Your task to perform on an android device: turn off location history Image 0: 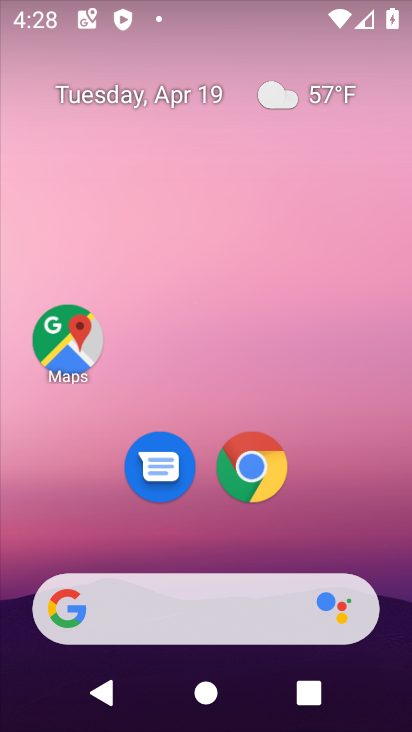
Step 0: drag from (173, 327) to (43, 261)
Your task to perform on an android device: turn off location history Image 1: 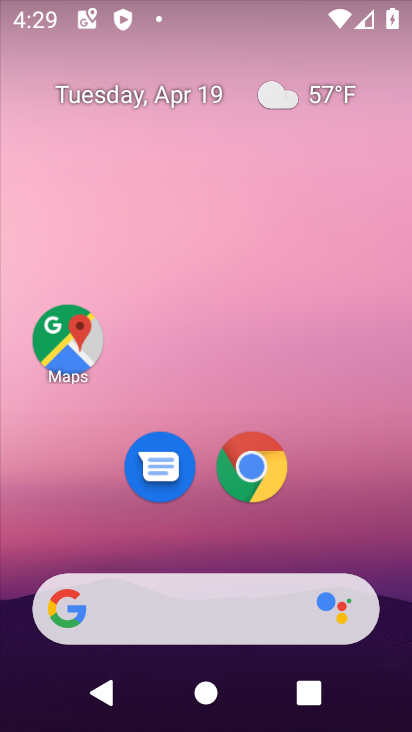
Step 1: drag from (254, 637) to (179, 1)
Your task to perform on an android device: turn off location history Image 2: 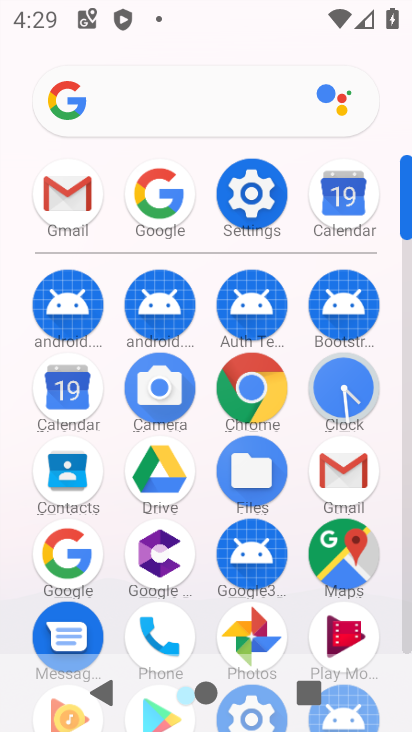
Step 2: click (260, 221)
Your task to perform on an android device: turn off location history Image 3: 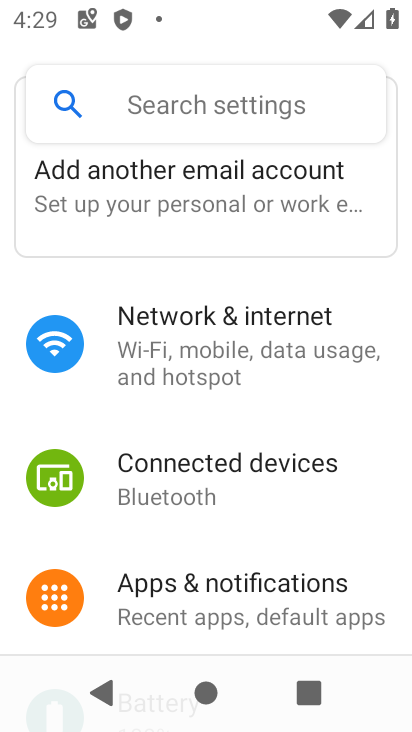
Step 3: drag from (261, 554) to (213, 153)
Your task to perform on an android device: turn off location history Image 4: 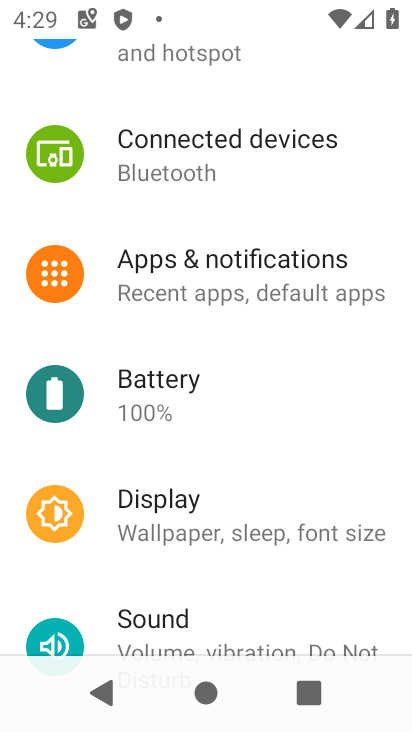
Step 4: drag from (165, 518) to (180, 225)
Your task to perform on an android device: turn off location history Image 5: 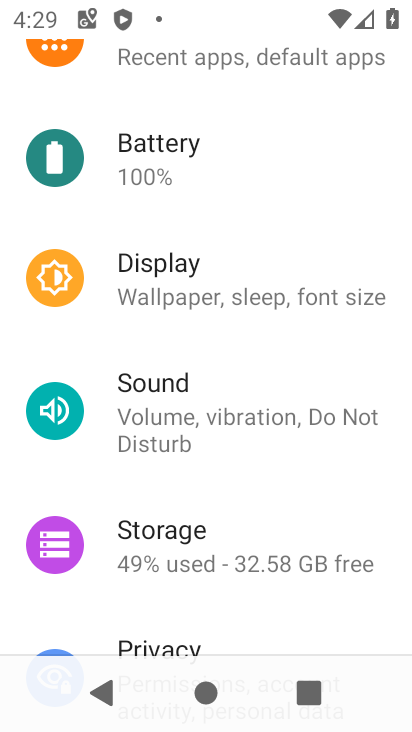
Step 5: drag from (158, 502) to (161, 277)
Your task to perform on an android device: turn off location history Image 6: 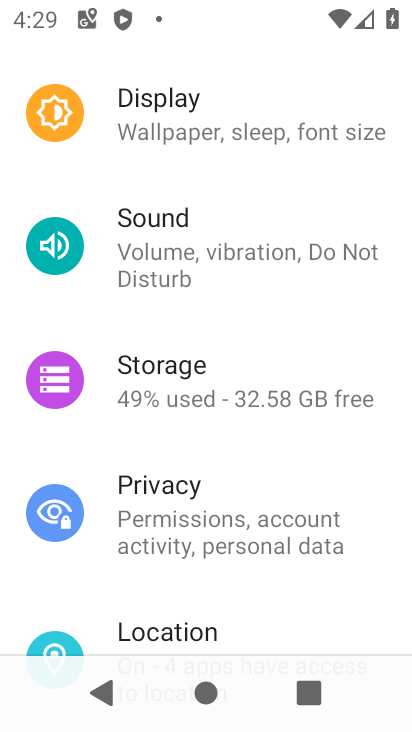
Step 6: drag from (168, 534) to (178, 243)
Your task to perform on an android device: turn off location history Image 7: 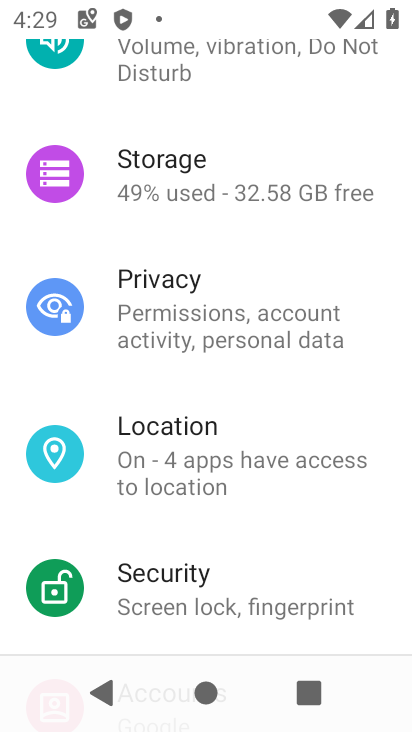
Step 7: click (222, 462)
Your task to perform on an android device: turn off location history Image 8: 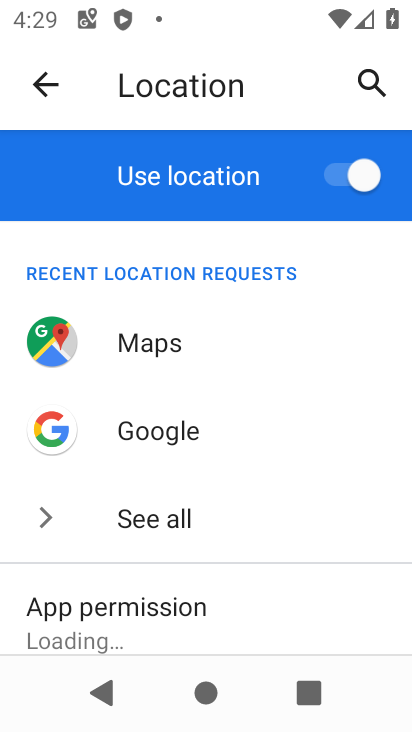
Step 8: drag from (222, 566) to (196, 286)
Your task to perform on an android device: turn off location history Image 9: 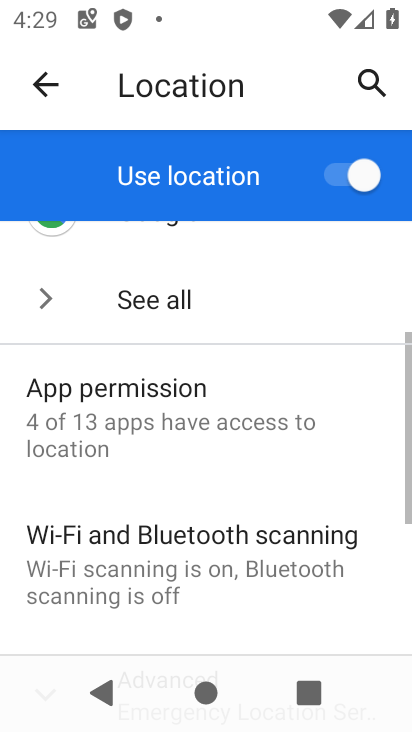
Step 9: click (196, 267)
Your task to perform on an android device: turn off location history Image 10: 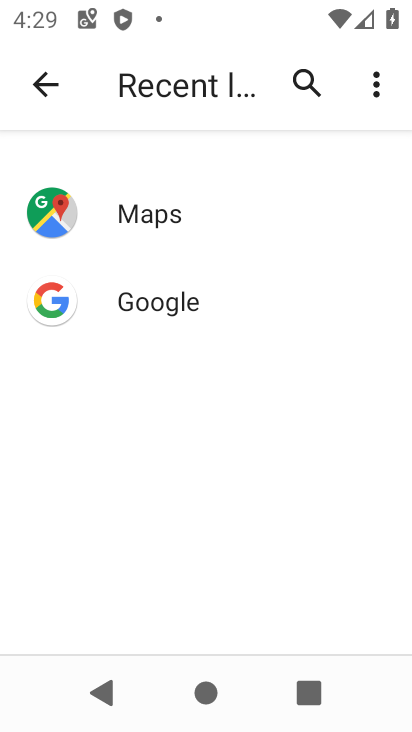
Step 10: click (114, 710)
Your task to perform on an android device: turn off location history Image 11: 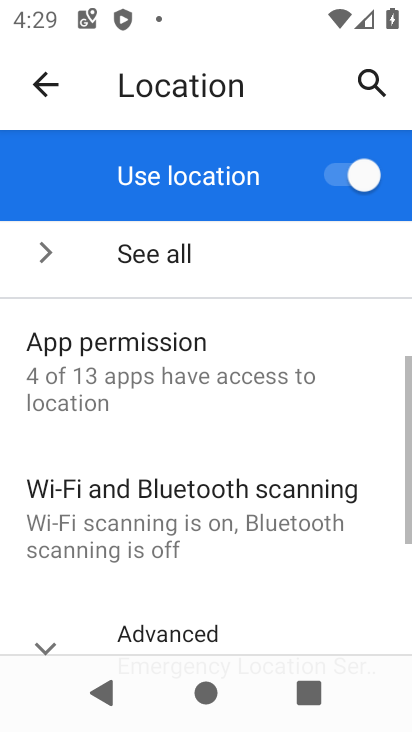
Step 11: drag from (114, 538) to (99, 320)
Your task to perform on an android device: turn off location history Image 12: 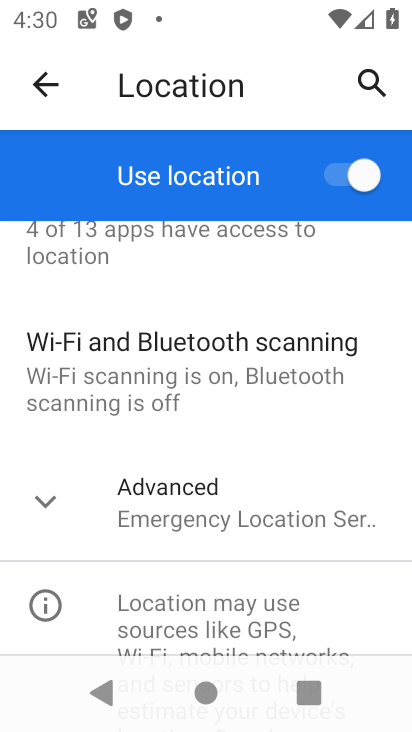
Step 12: click (93, 491)
Your task to perform on an android device: turn off location history Image 13: 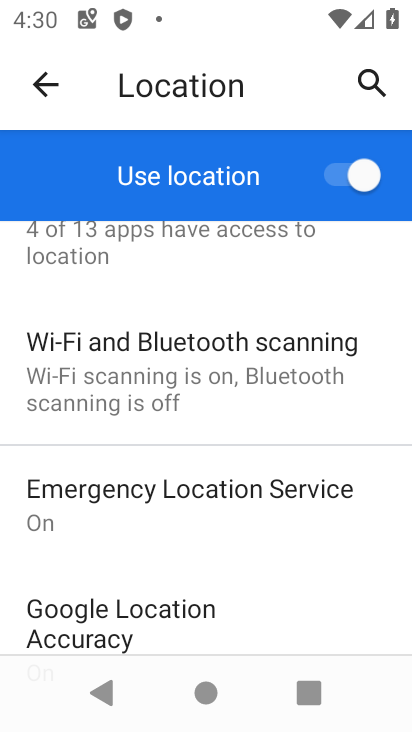
Step 13: drag from (120, 540) to (74, 290)
Your task to perform on an android device: turn off location history Image 14: 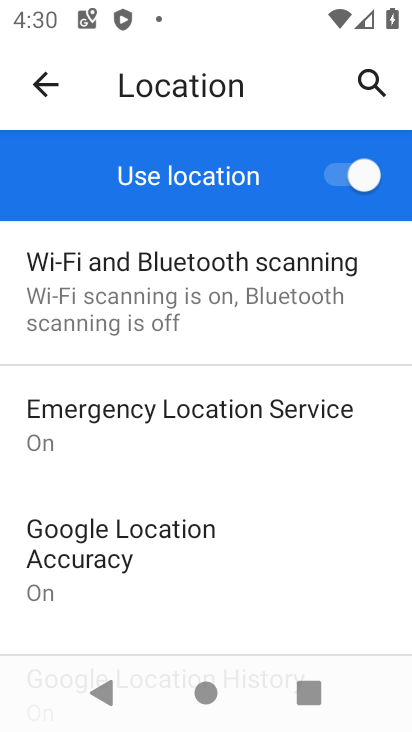
Step 14: drag from (150, 522) to (135, 317)
Your task to perform on an android device: turn off location history Image 15: 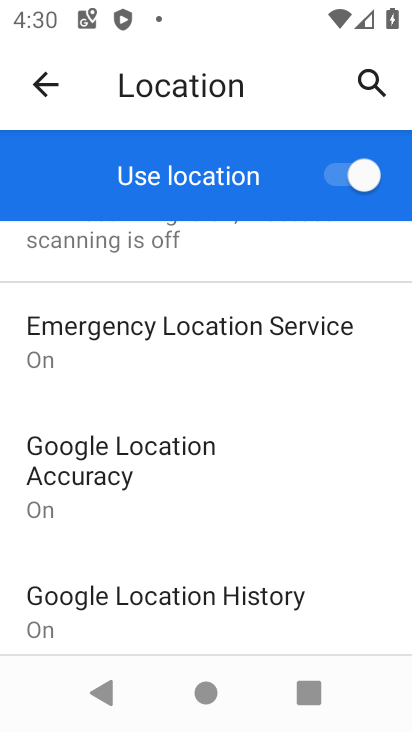
Step 15: drag from (146, 506) to (133, 273)
Your task to perform on an android device: turn off location history Image 16: 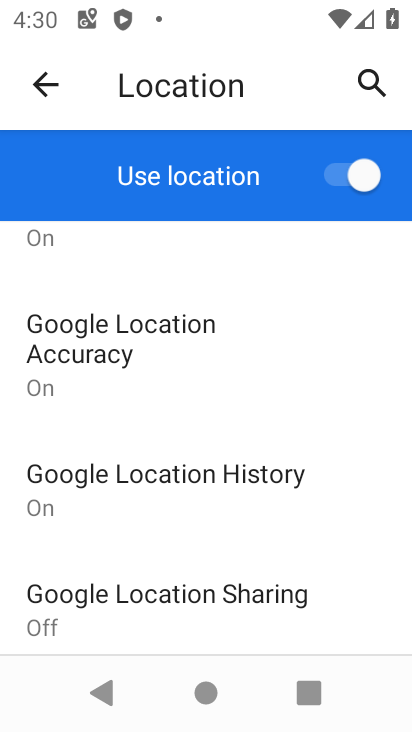
Step 16: click (203, 495)
Your task to perform on an android device: turn off location history Image 17: 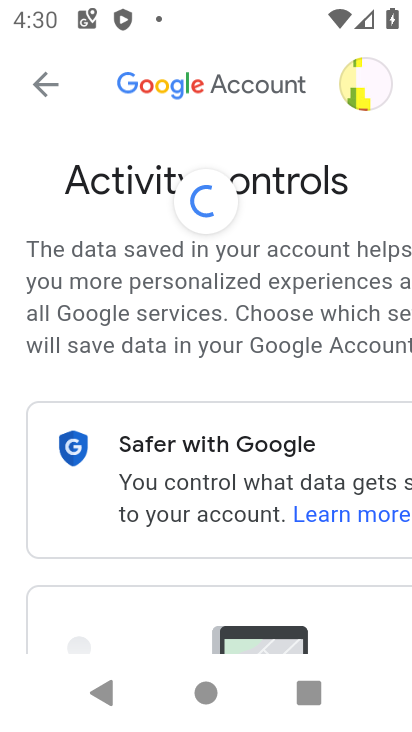
Step 17: drag from (297, 567) to (93, 238)
Your task to perform on an android device: turn off location history Image 18: 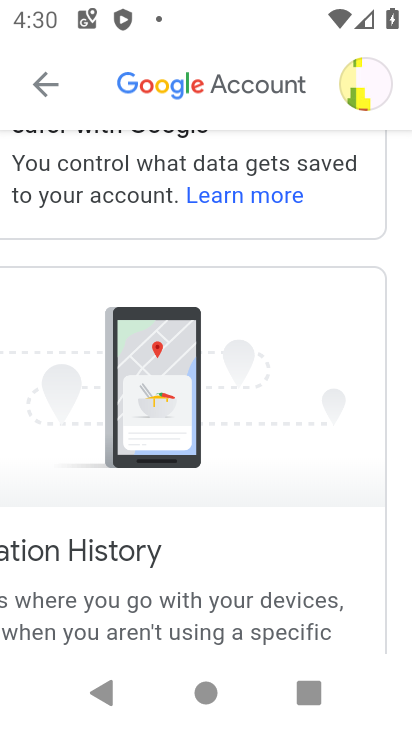
Step 18: drag from (290, 563) to (126, 176)
Your task to perform on an android device: turn off location history Image 19: 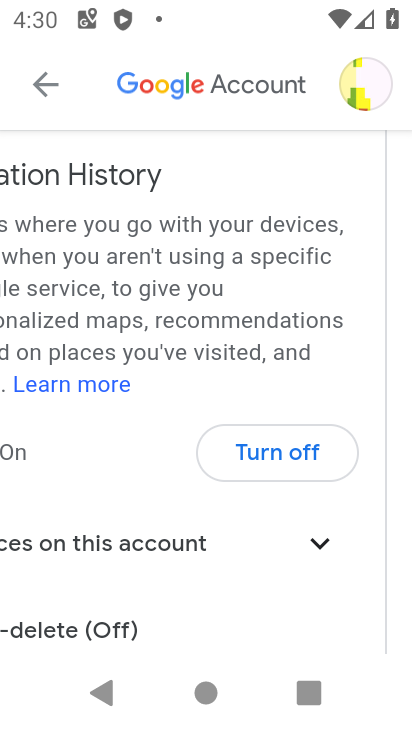
Step 19: click (287, 455)
Your task to perform on an android device: turn off location history Image 20: 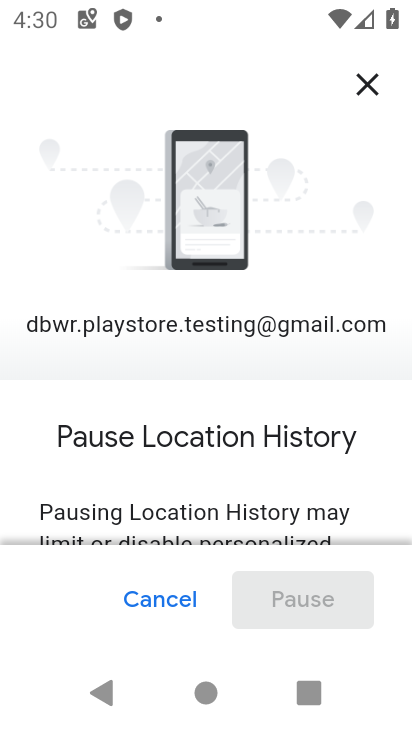
Step 20: drag from (292, 456) to (109, 2)
Your task to perform on an android device: turn off location history Image 21: 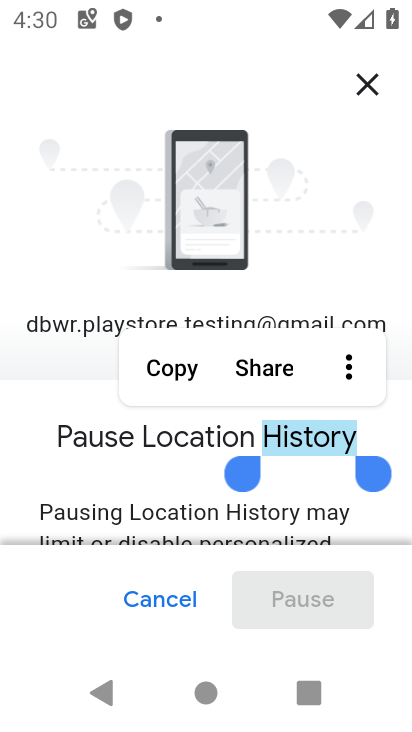
Step 21: drag from (164, 481) to (90, 16)
Your task to perform on an android device: turn off location history Image 22: 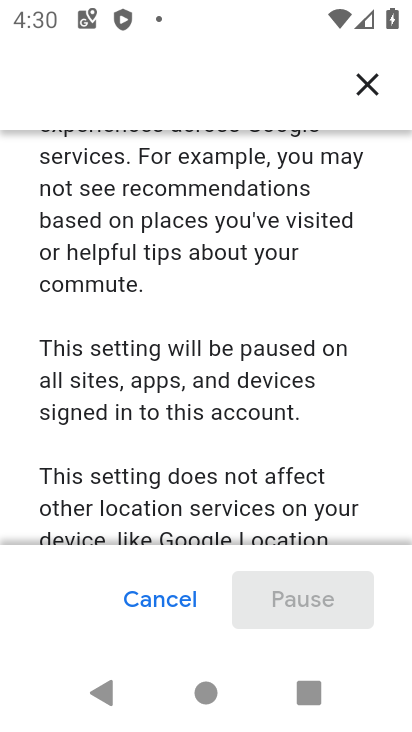
Step 22: drag from (312, 454) to (3, 20)
Your task to perform on an android device: turn off location history Image 23: 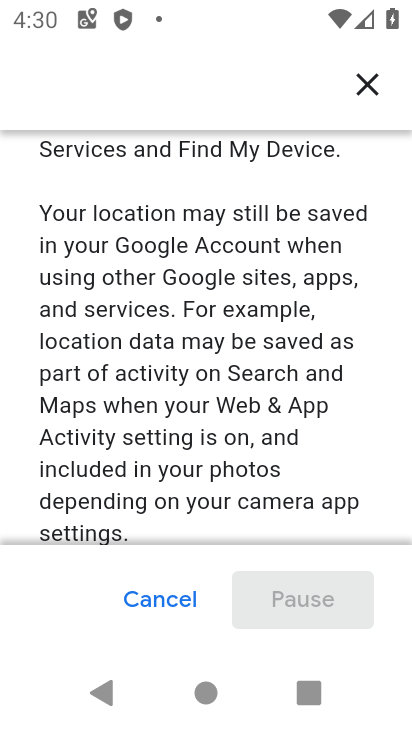
Step 23: drag from (205, 410) to (0, 96)
Your task to perform on an android device: turn off location history Image 24: 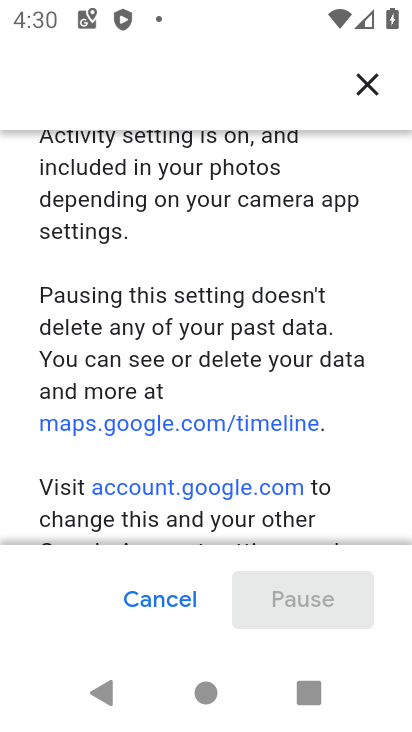
Step 24: drag from (257, 373) to (6, 5)
Your task to perform on an android device: turn off location history Image 25: 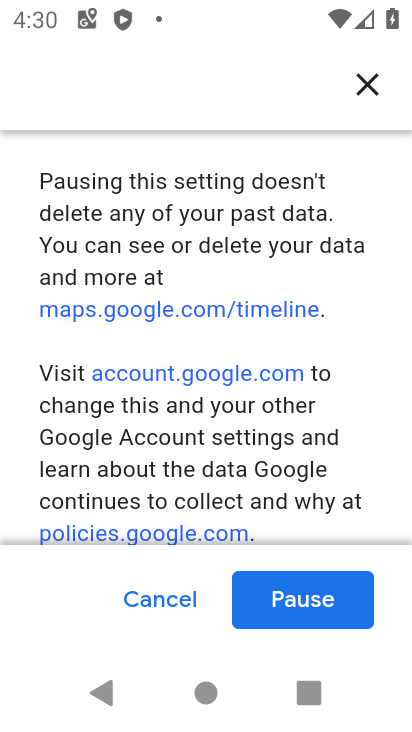
Step 25: click (319, 604)
Your task to perform on an android device: turn off location history Image 26: 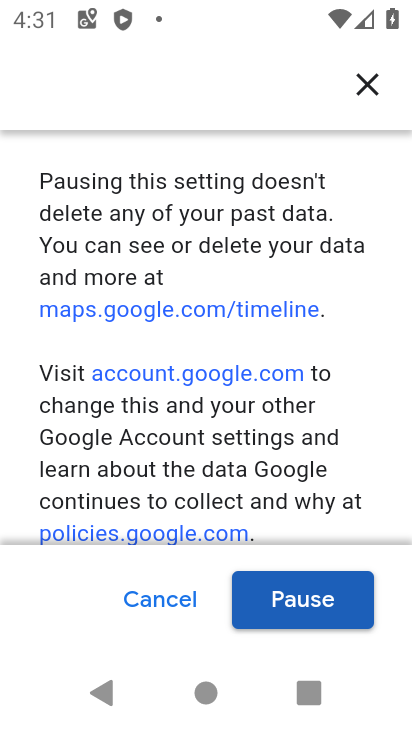
Step 26: click (322, 606)
Your task to perform on an android device: turn off location history Image 27: 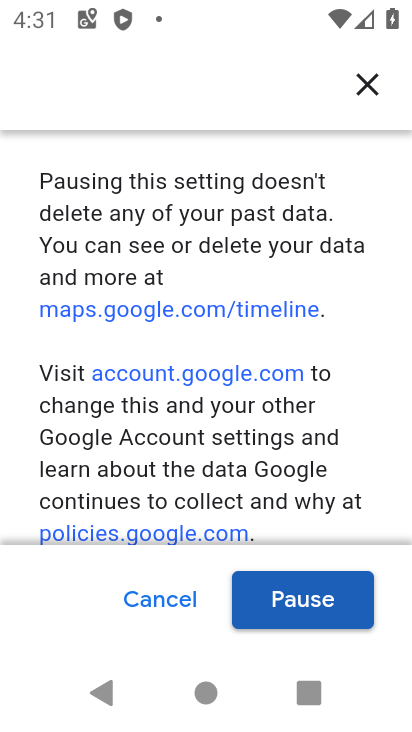
Step 27: click (311, 612)
Your task to perform on an android device: turn off location history Image 28: 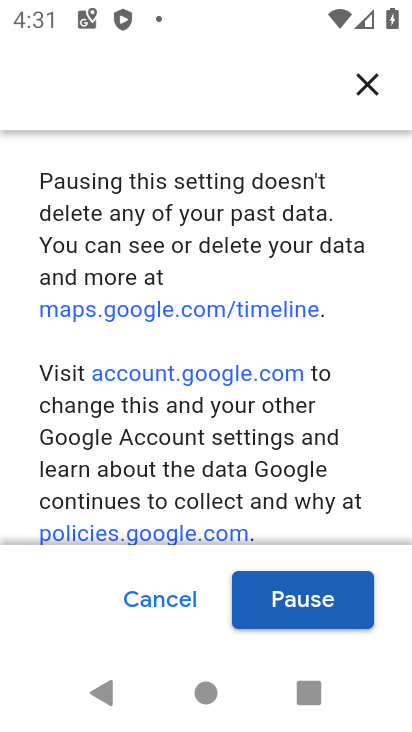
Step 28: click (320, 593)
Your task to perform on an android device: turn off location history Image 29: 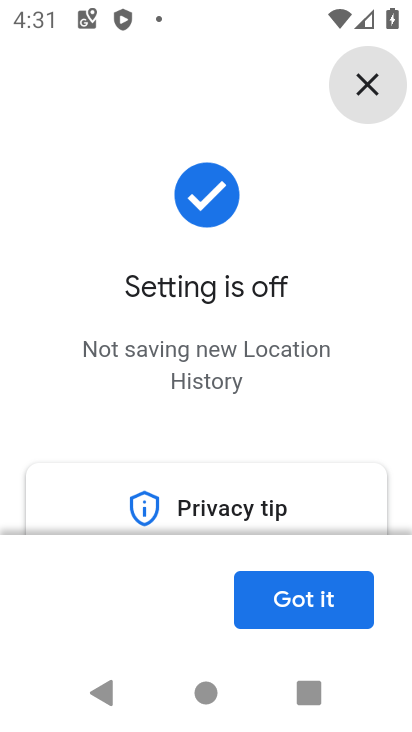
Step 29: click (340, 619)
Your task to perform on an android device: turn off location history Image 30: 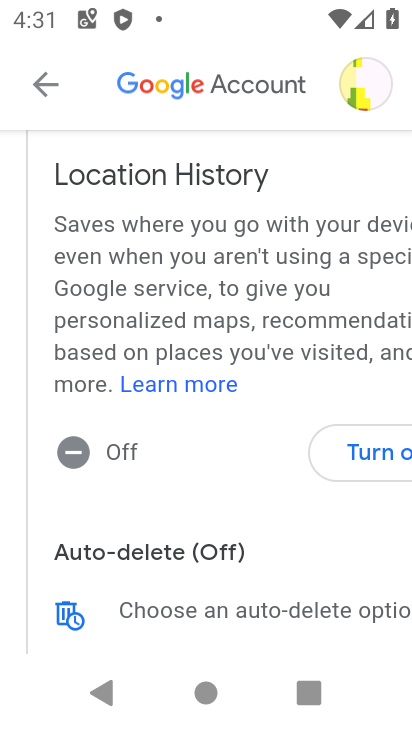
Step 30: task complete